Your task to perform on an android device: Go to eBay Image 0: 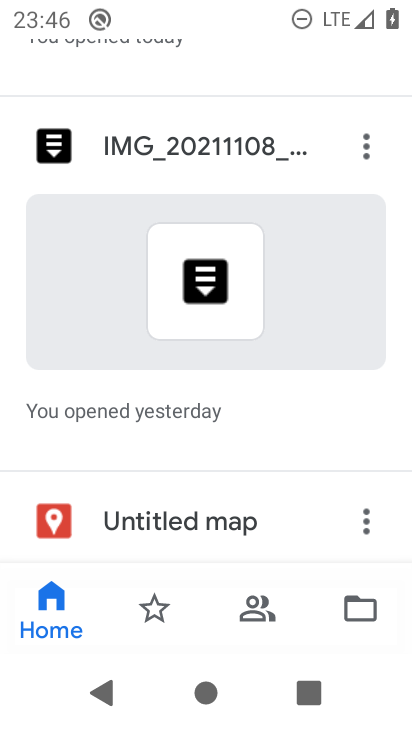
Step 0: drag from (207, 553) to (234, 131)
Your task to perform on an android device: Go to eBay Image 1: 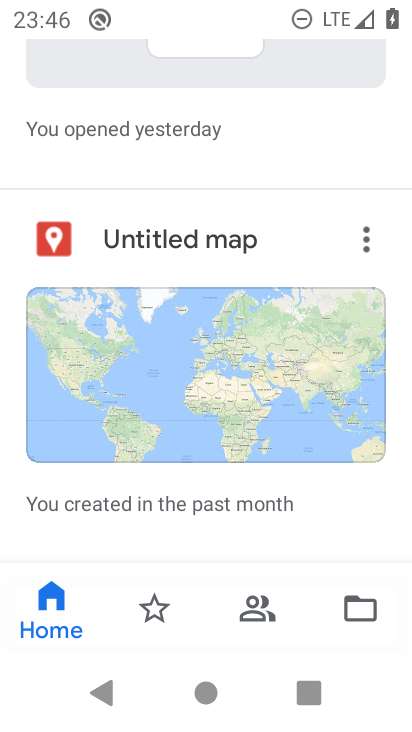
Step 1: press home button
Your task to perform on an android device: Go to eBay Image 2: 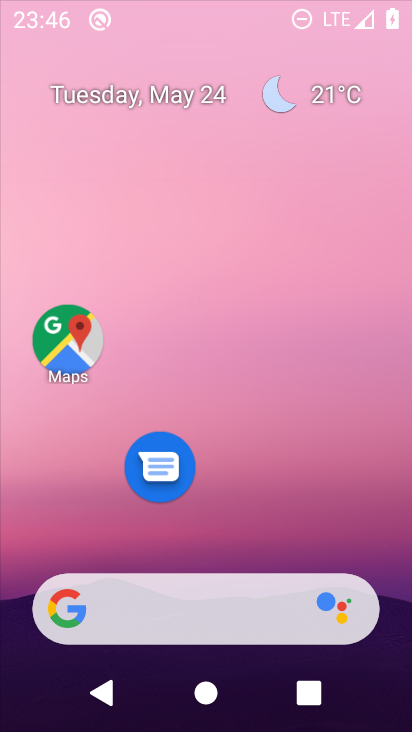
Step 2: drag from (209, 510) to (251, 7)
Your task to perform on an android device: Go to eBay Image 3: 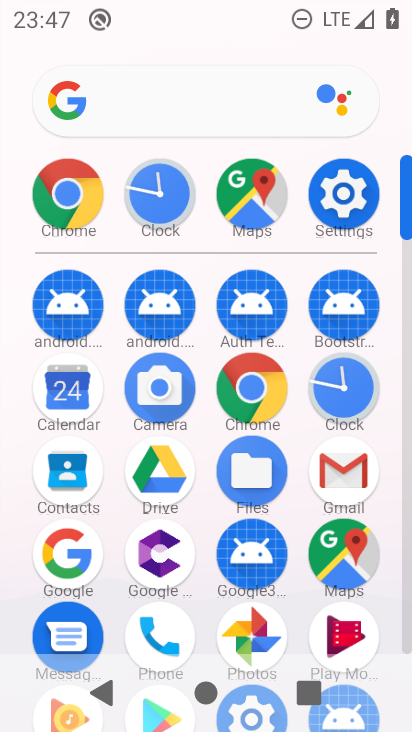
Step 3: click (140, 95)
Your task to perform on an android device: Go to eBay Image 4: 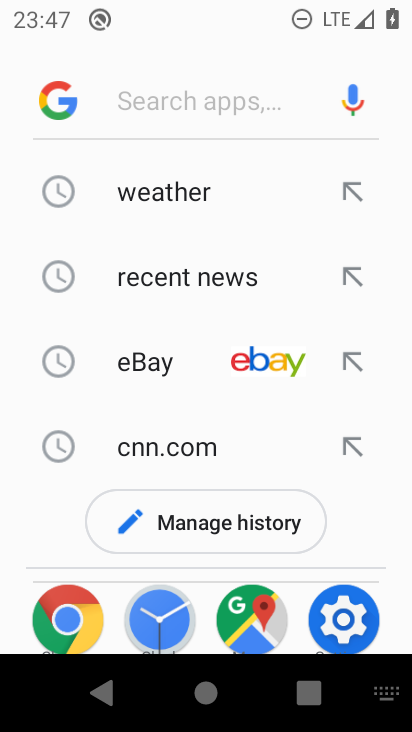
Step 4: click (163, 367)
Your task to perform on an android device: Go to eBay Image 5: 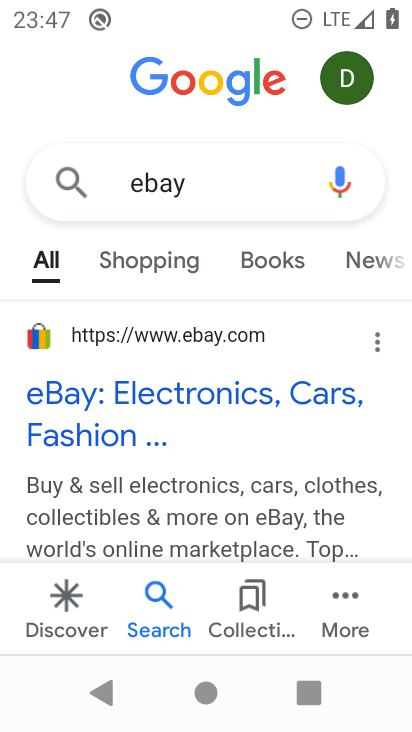
Step 5: click (119, 422)
Your task to perform on an android device: Go to eBay Image 6: 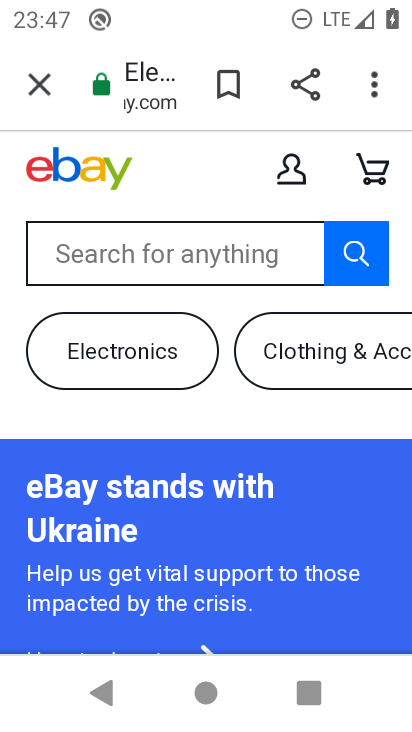
Step 6: task complete